Your task to perform on an android device: Open calendar and show me the third week of next month Image 0: 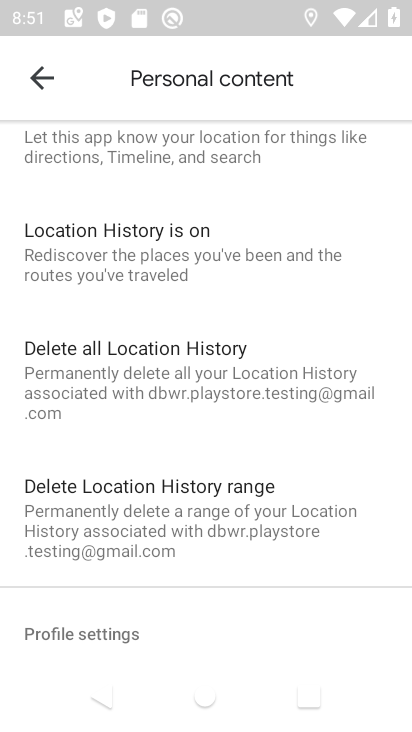
Step 0: press home button
Your task to perform on an android device: Open calendar and show me the third week of next month Image 1: 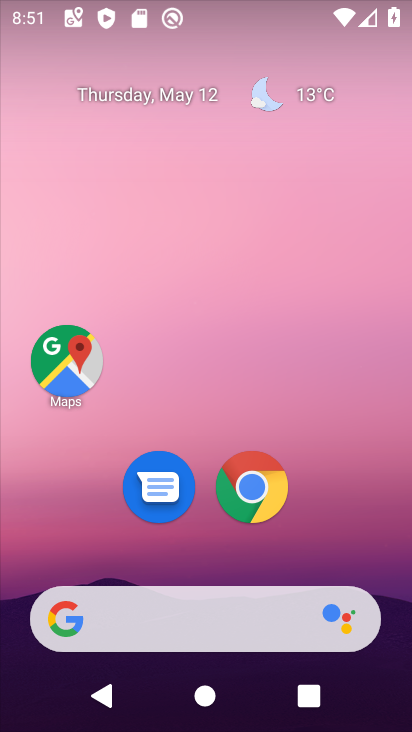
Step 1: drag from (337, 569) to (296, 7)
Your task to perform on an android device: Open calendar and show me the third week of next month Image 2: 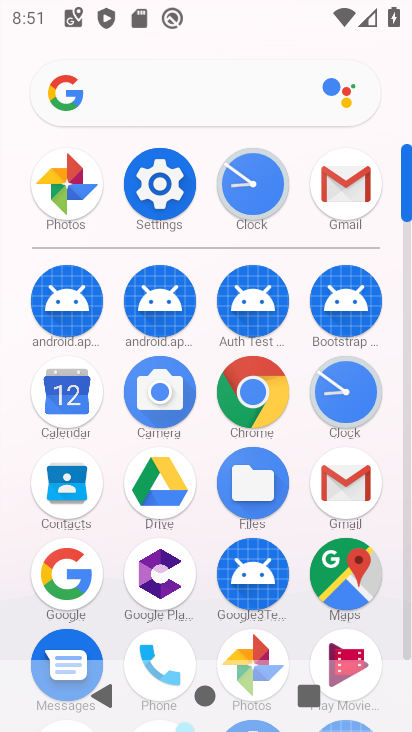
Step 2: click (70, 385)
Your task to perform on an android device: Open calendar and show me the third week of next month Image 3: 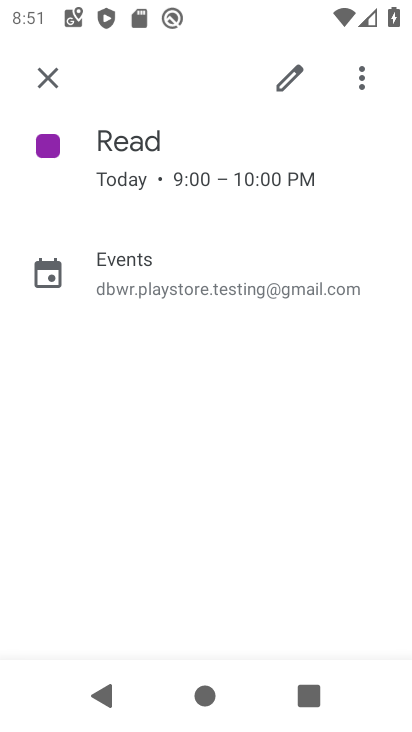
Step 3: click (48, 82)
Your task to perform on an android device: Open calendar and show me the third week of next month Image 4: 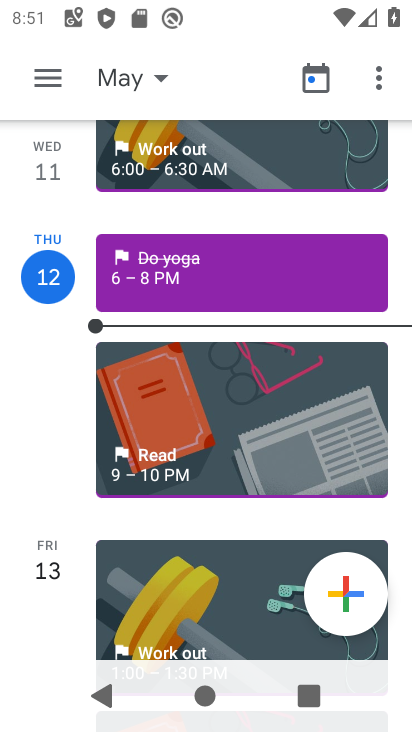
Step 4: click (157, 80)
Your task to perform on an android device: Open calendar and show me the third week of next month Image 5: 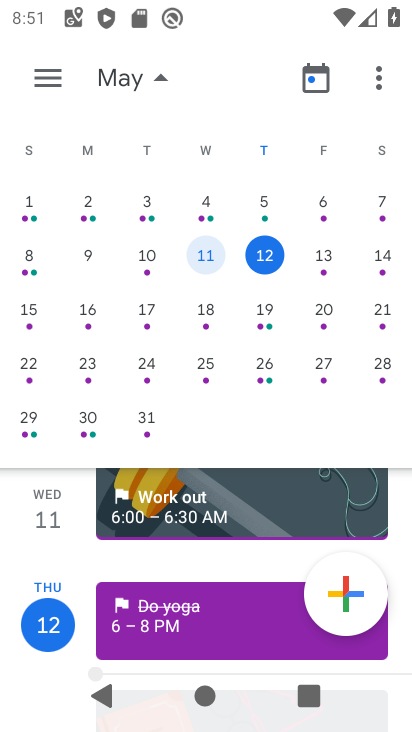
Step 5: drag from (335, 291) to (6, 280)
Your task to perform on an android device: Open calendar and show me the third week of next month Image 6: 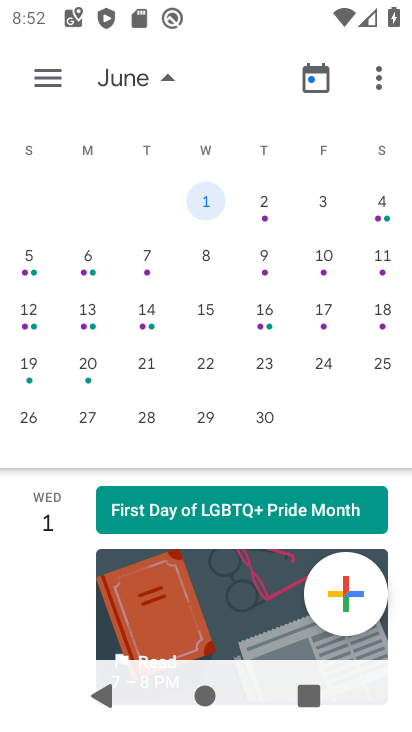
Step 6: click (39, 80)
Your task to perform on an android device: Open calendar and show me the third week of next month Image 7: 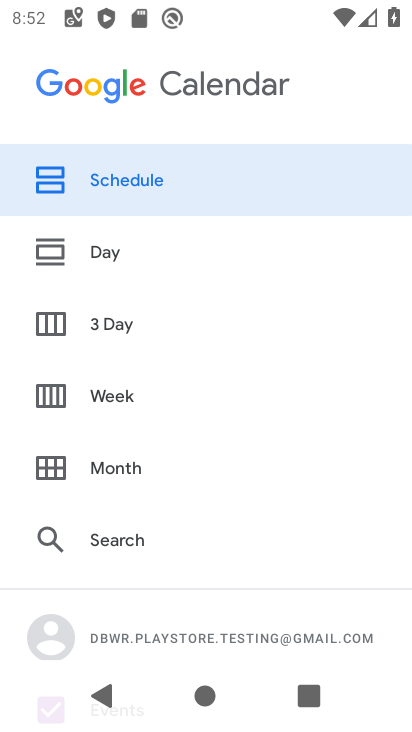
Step 7: click (85, 398)
Your task to perform on an android device: Open calendar and show me the third week of next month Image 8: 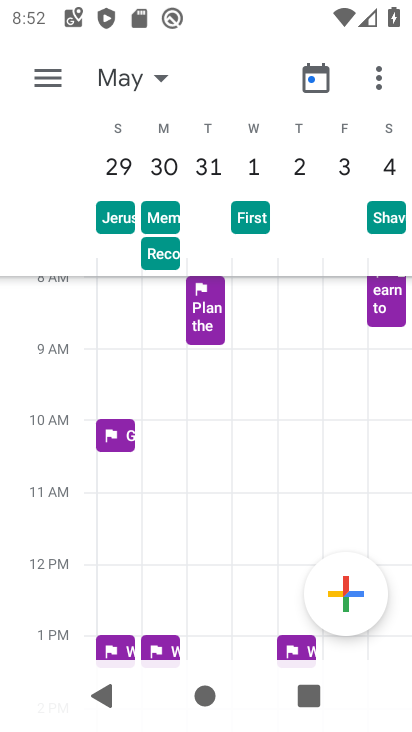
Step 8: task complete